Your task to perform on an android device: Go to Google maps Image 0: 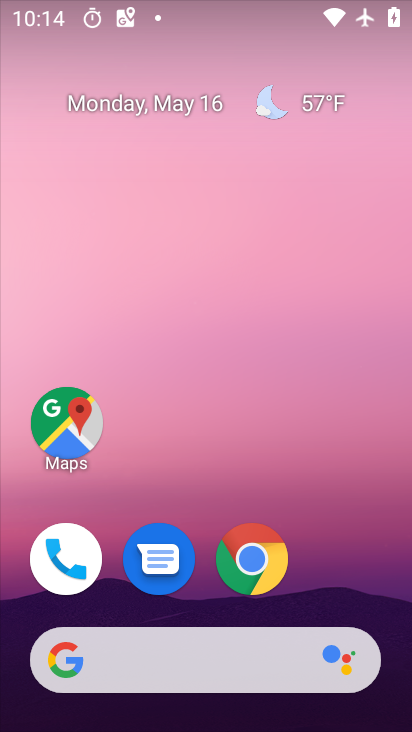
Step 0: click (73, 417)
Your task to perform on an android device: Go to Google maps Image 1: 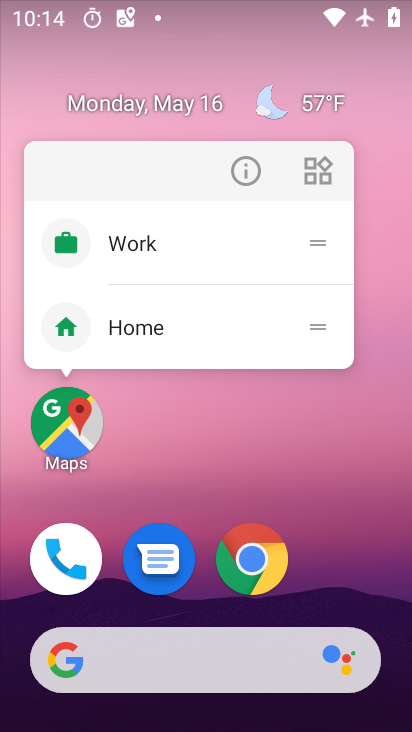
Step 1: click (53, 438)
Your task to perform on an android device: Go to Google maps Image 2: 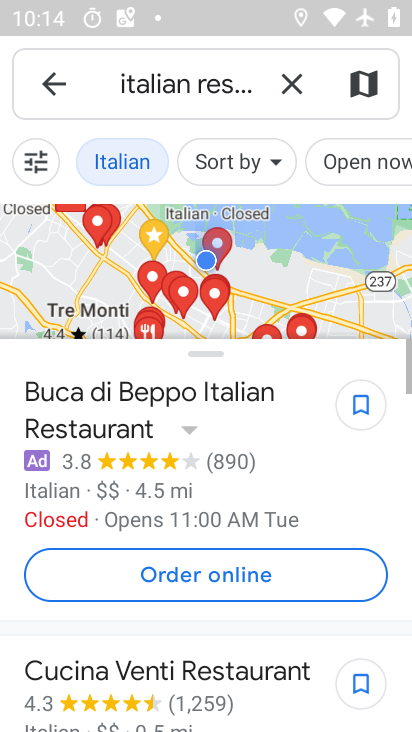
Step 2: task complete